Your task to perform on an android device: Go to Amazon Image 0: 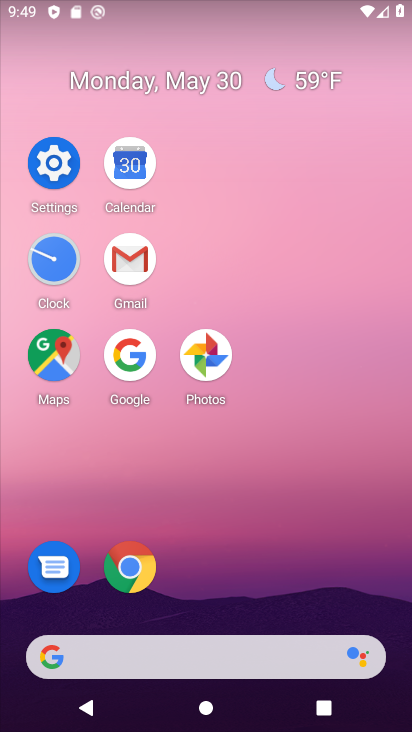
Step 0: click (150, 582)
Your task to perform on an android device: Go to Amazon Image 1: 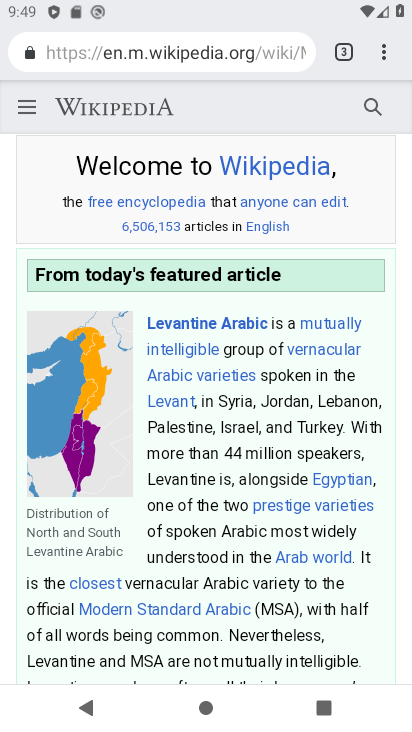
Step 1: click (347, 51)
Your task to perform on an android device: Go to Amazon Image 2: 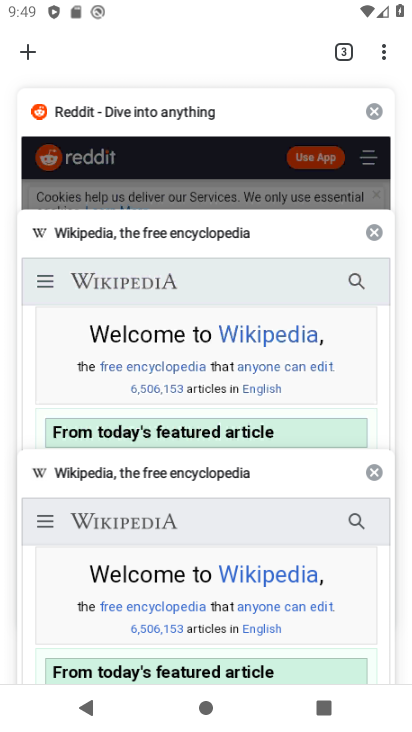
Step 2: click (12, 55)
Your task to perform on an android device: Go to Amazon Image 3: 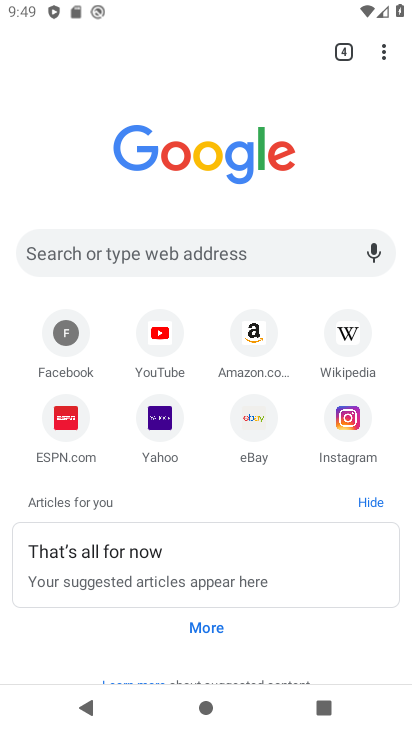
Step 3: click (254, 327)
Your task to perform on an android device: Go to Amazon Image 4: 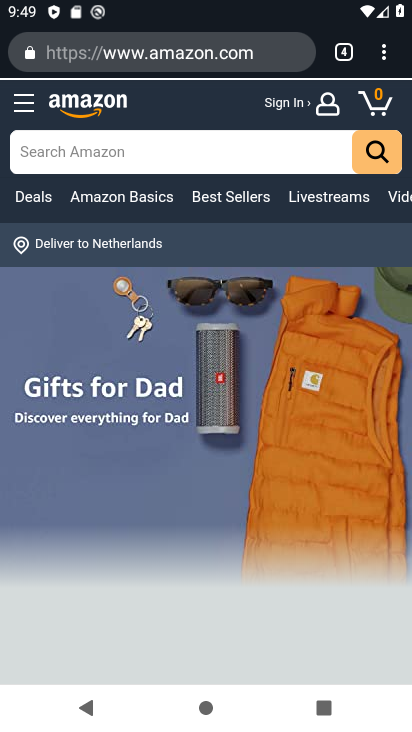
Step 4: task complete